Your task to perform on an android device: turn off location Image 0: 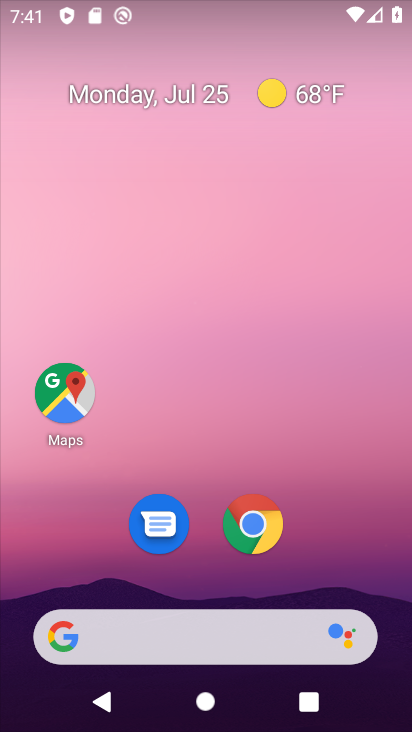
Step 0: drag from (344, 549) to (410, 139)
Your task to perform on an android device: turn off location Image 1: 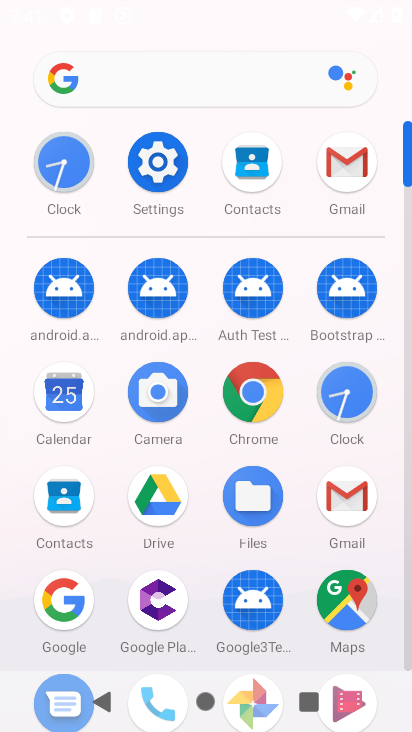
Step 1: click (162, 160)
Your task to perform on an android device: turn off location Image 2: 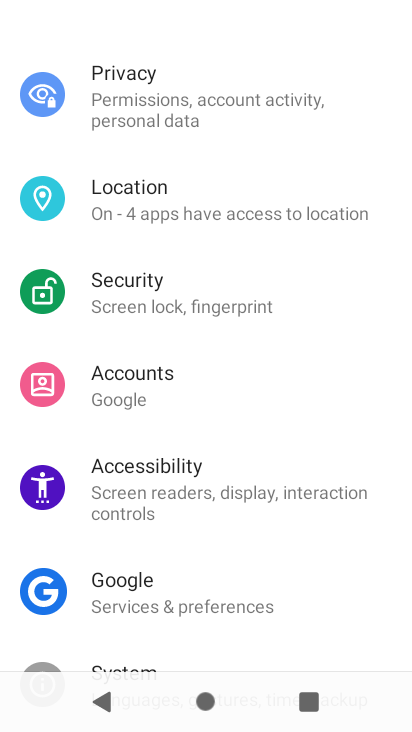
Step 2: click (194, 203)
Your task to perform on an android device: turn off location Image 3: 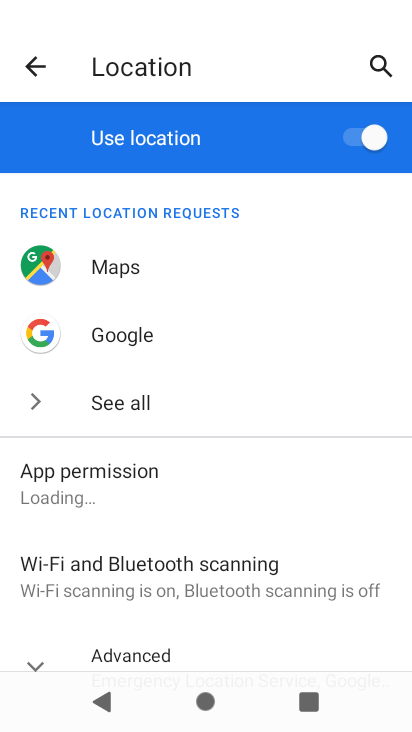
Step 3: click (364, 132)
Your task to perform on an android device: turn off location Image 4: 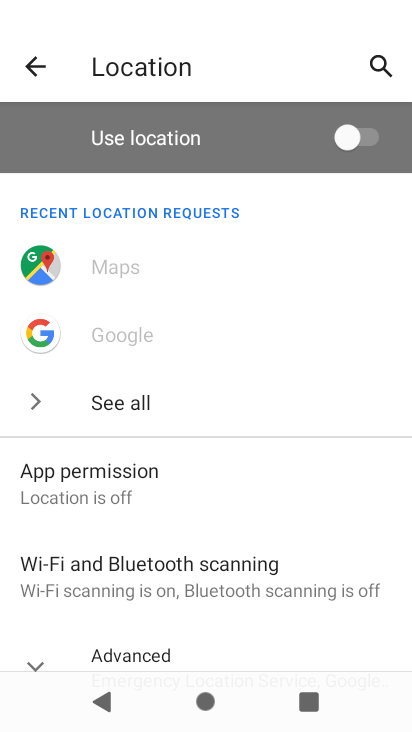
Step 4: task complete